Your task to perform on an android device: Open calendar and show me the third week of next month Image 0: 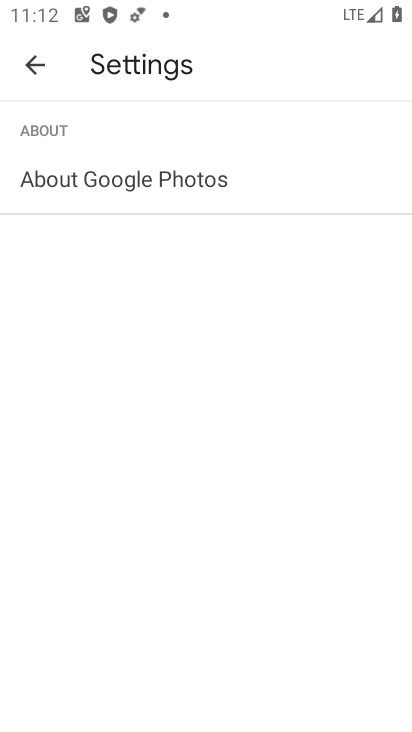
Step 0: press home button
Your task to perform on an android device: Open calendar and show me the third week of next month Image 1: 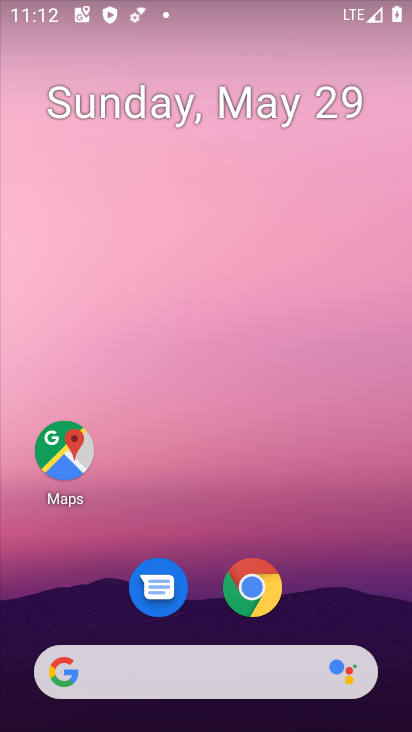
Step 1: drag from (381, 550) to (276, 104)
Your task to perform on an android device: Open calendar and show me the third week of next month Image 2: 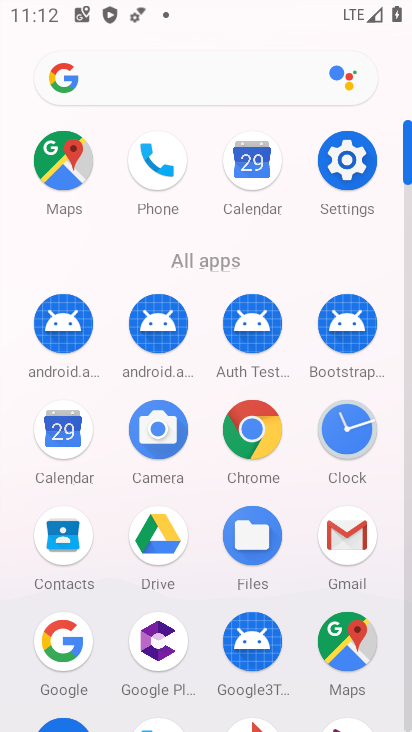
Step 2: click (245, 155)
Your task to perform on an android device: Open calendar and show me the third week of next month Image 3: 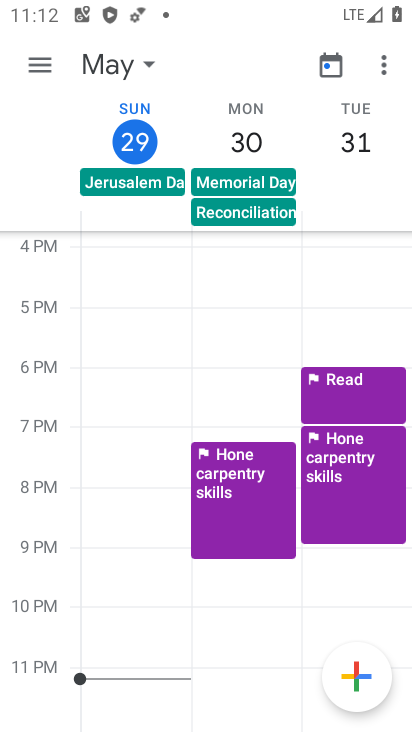
Step 3: click (23, 48)
Your task to perform on an android device: Open calendar and show me the third week of next month Image 4: 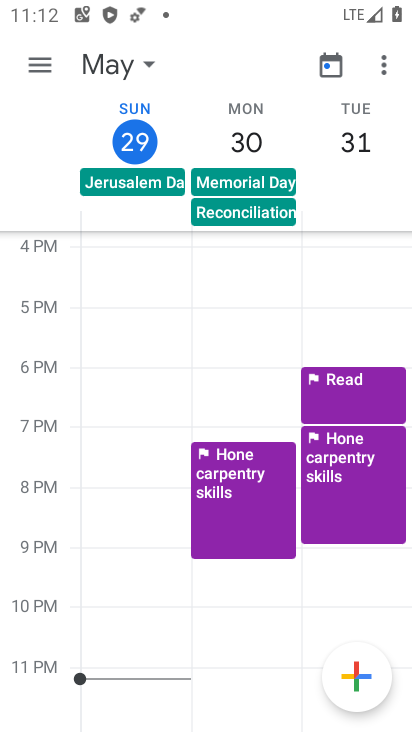
Step 4: click (22, 37)
Your task to perform on an android device: Open calendar and show me the third week of next month Image 5: 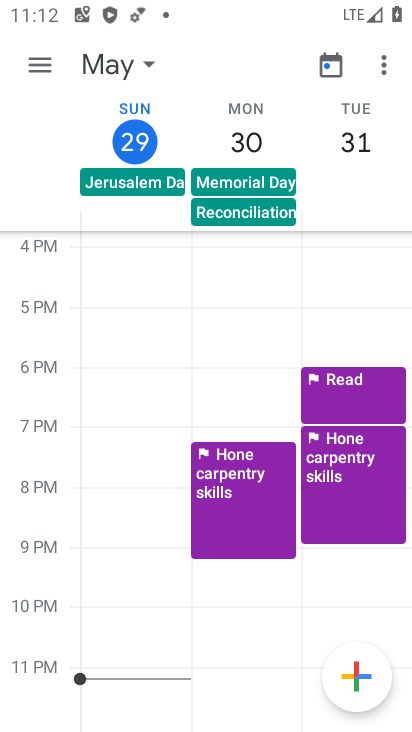
Step 5: click (31, 66)
Your task to perform on an android device: Open calendar and show me the third week of next month Image 6: 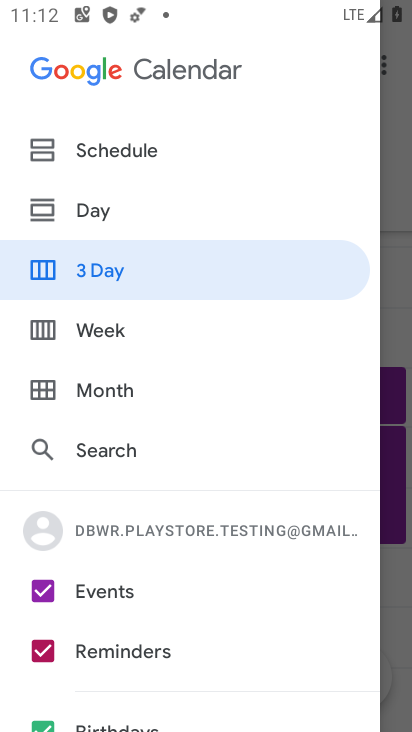
Step 6: click (404, 208)
Your task to perform on an android device: Open calendar and show me the third week of next month Image 7: 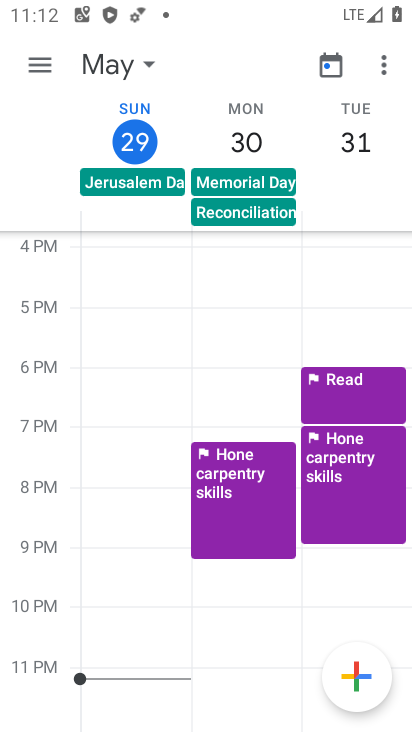
Step 7: click (123, 71)
Your task to perform on an android device: Open calendar and show me the third week of next month Image 8: 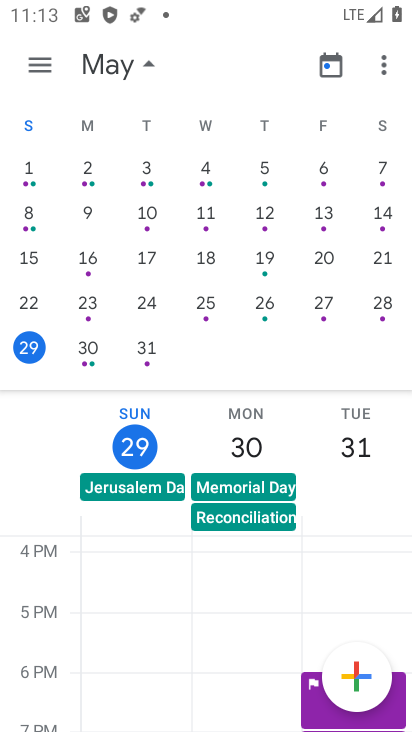
Step 8: drag from (381, 250) to (10, 233)
Your task to perform on an android device: Open calendar and show me the third week of next month Image 9: 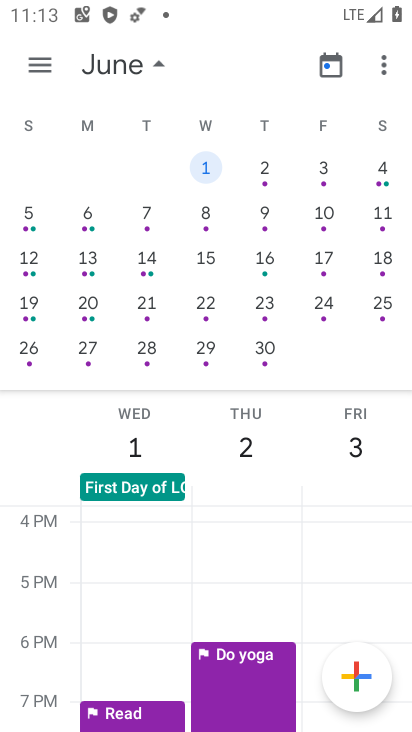
Step 9: click (30, 298)
Your task to perform on an android device: Open calendar and show me the third week of next month Image 10: 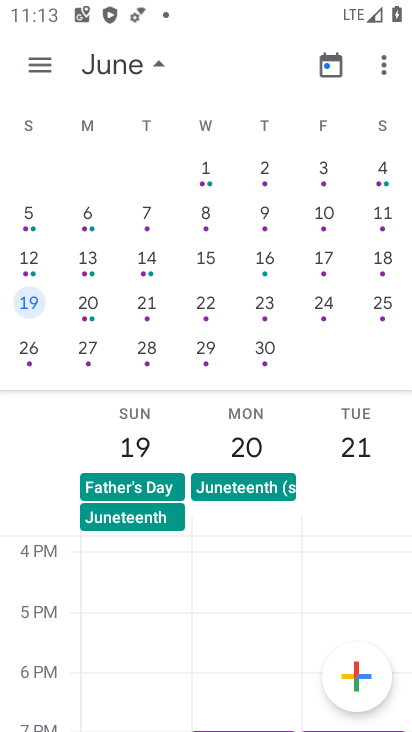
Step 10: drag from (329, 460) to (271, 134)
Your task to perform on an android device: Open calendar and show me the third week of next month Image 11: 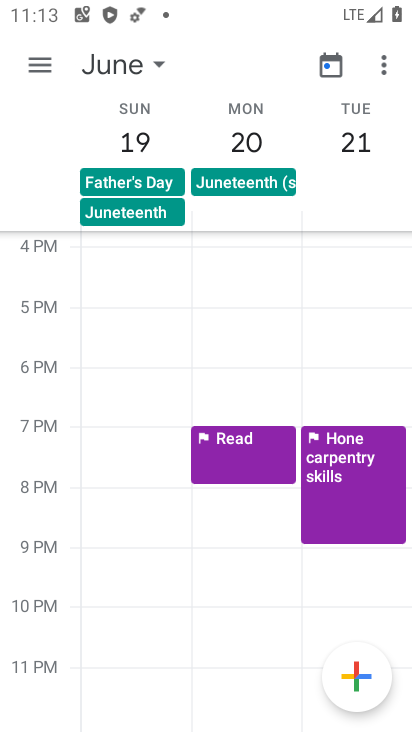
Step 11: click (30, 59)
Your task to perform on an android device: Open calendar and show me the third week of next month Image 12: 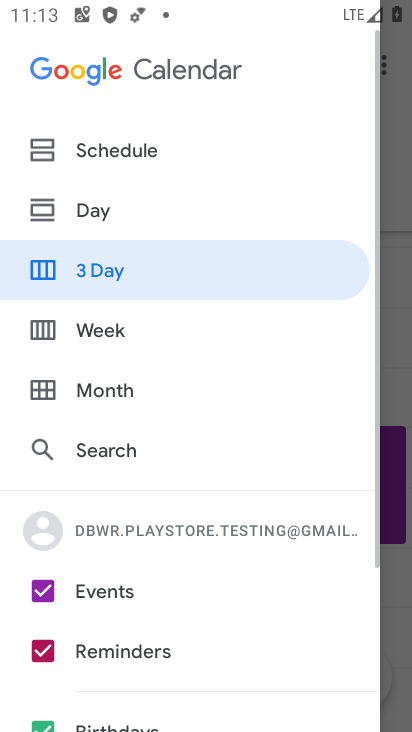
Step 12: click (69, 341)
Your task to perform on an android device: Open calendar and show me the third week of next month Image 13: 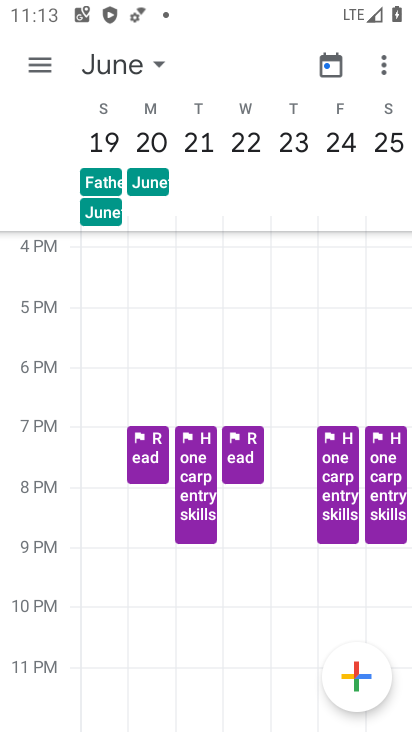
Step 13: task complete